Your task to perform on an android device: Search for "razer nari" on walmart.com, select the first entry, add it to the cart, then select checkout. Image 0: 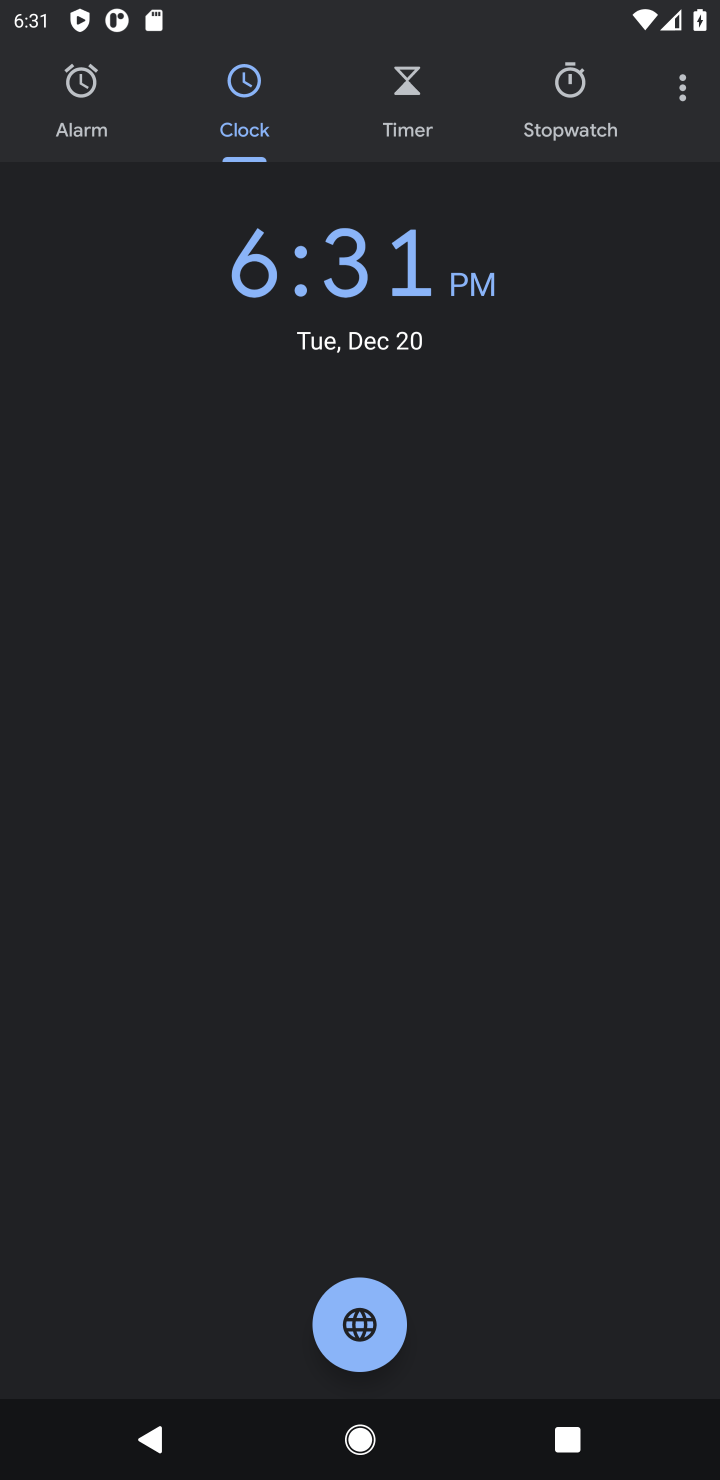
Step 0: press home button
Your task to perform on an android device: Search for "razer nari" on walmart.com, select the first entry, add it to the cart, then select checkout. Image 1: 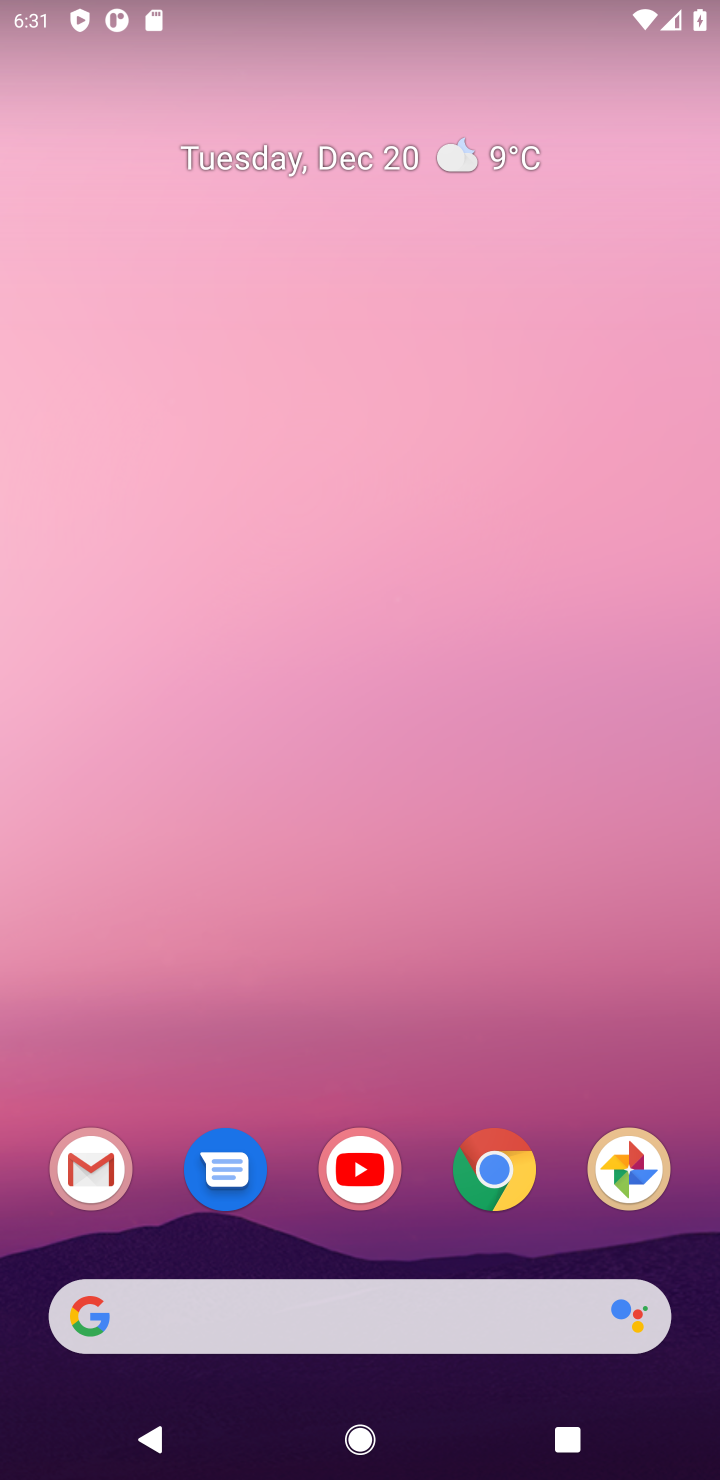
Step 1: click (483, 1159)
Your task to perform on an android device: Search for "razer nari" on walmart.com, select the first entry, add it to the cart, then select checkout. Image 2: 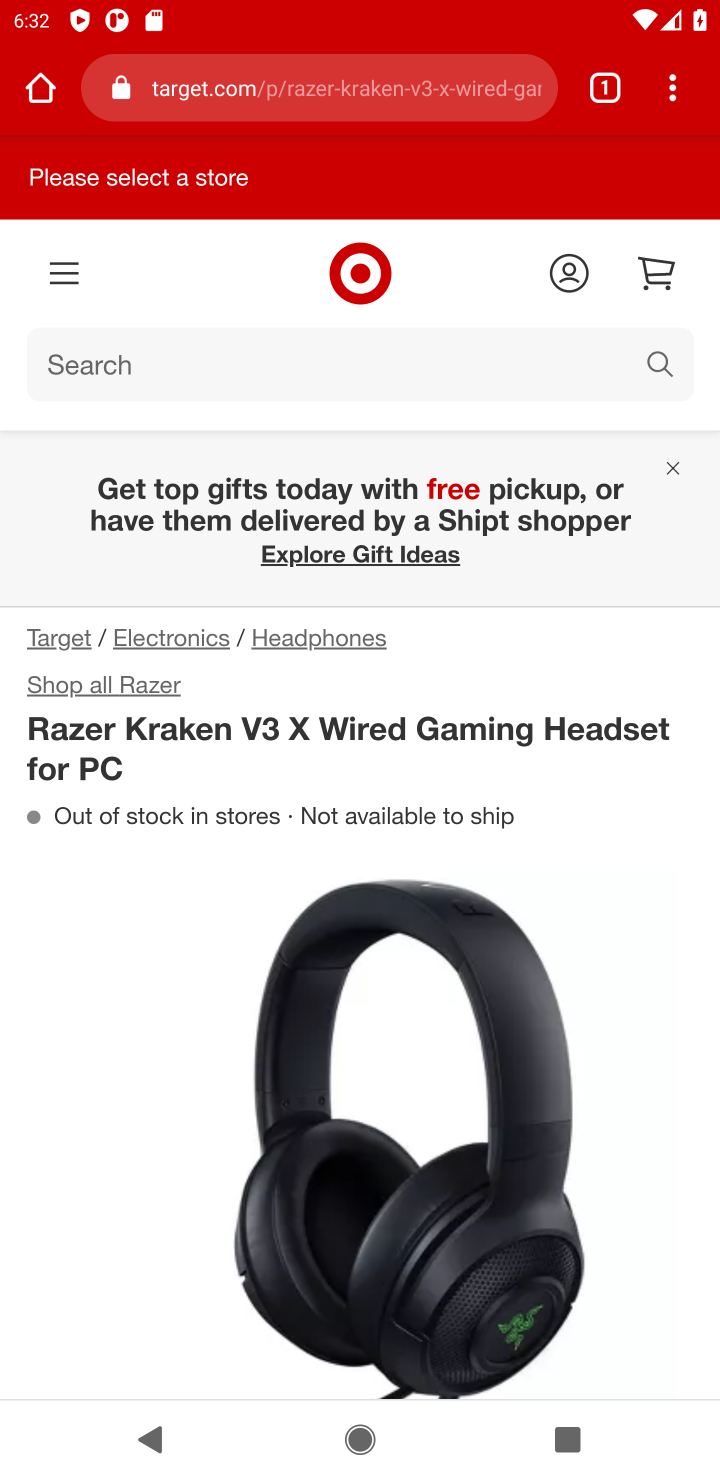
Step 2: click (281, 101)
Your task to perform on an android device: Search for "razer nari" on walmart.com, select the first entry, add it to the cart, then select checkout. Image 3: 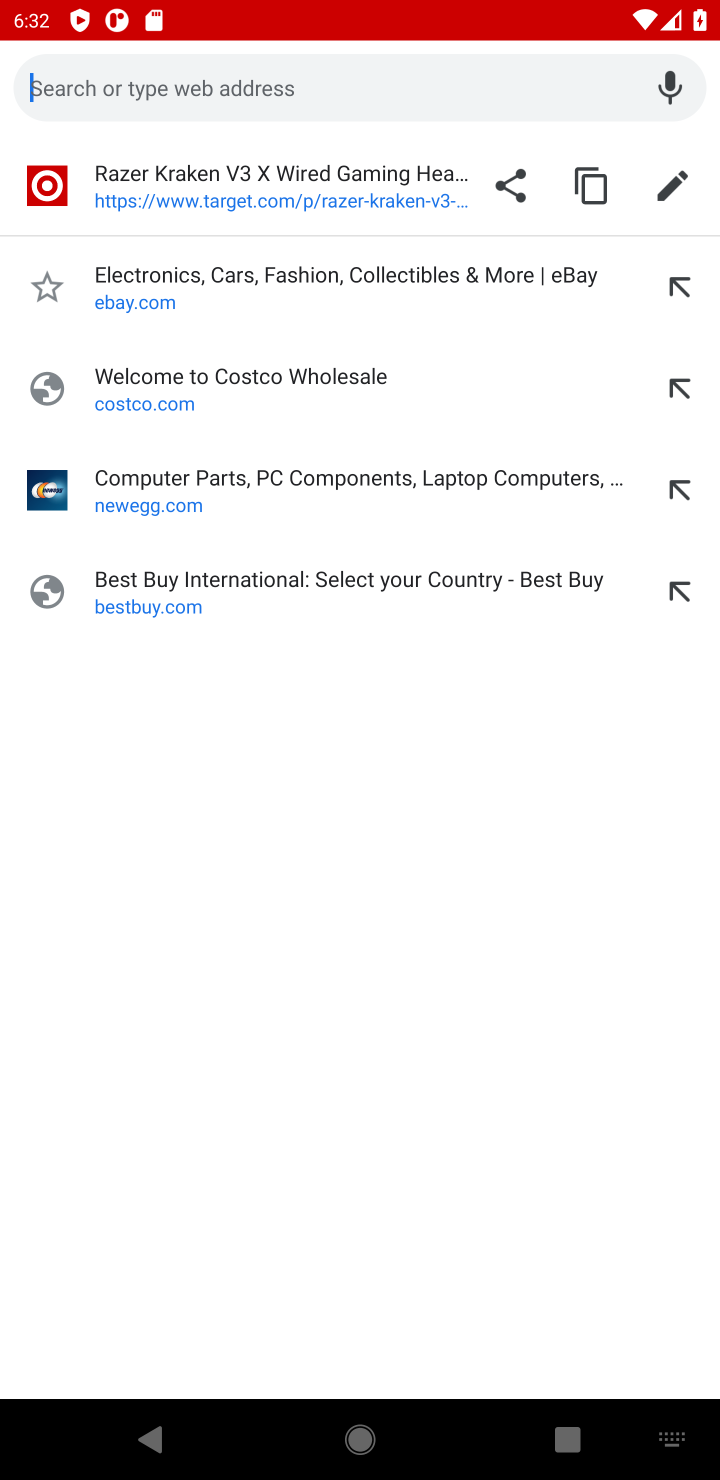
Step 3: type "walmart"
Your task to perform on an android device: Search for "razer nari" on walmart.com, select the first entry, add it to the cart, then select checkout. Image 4: 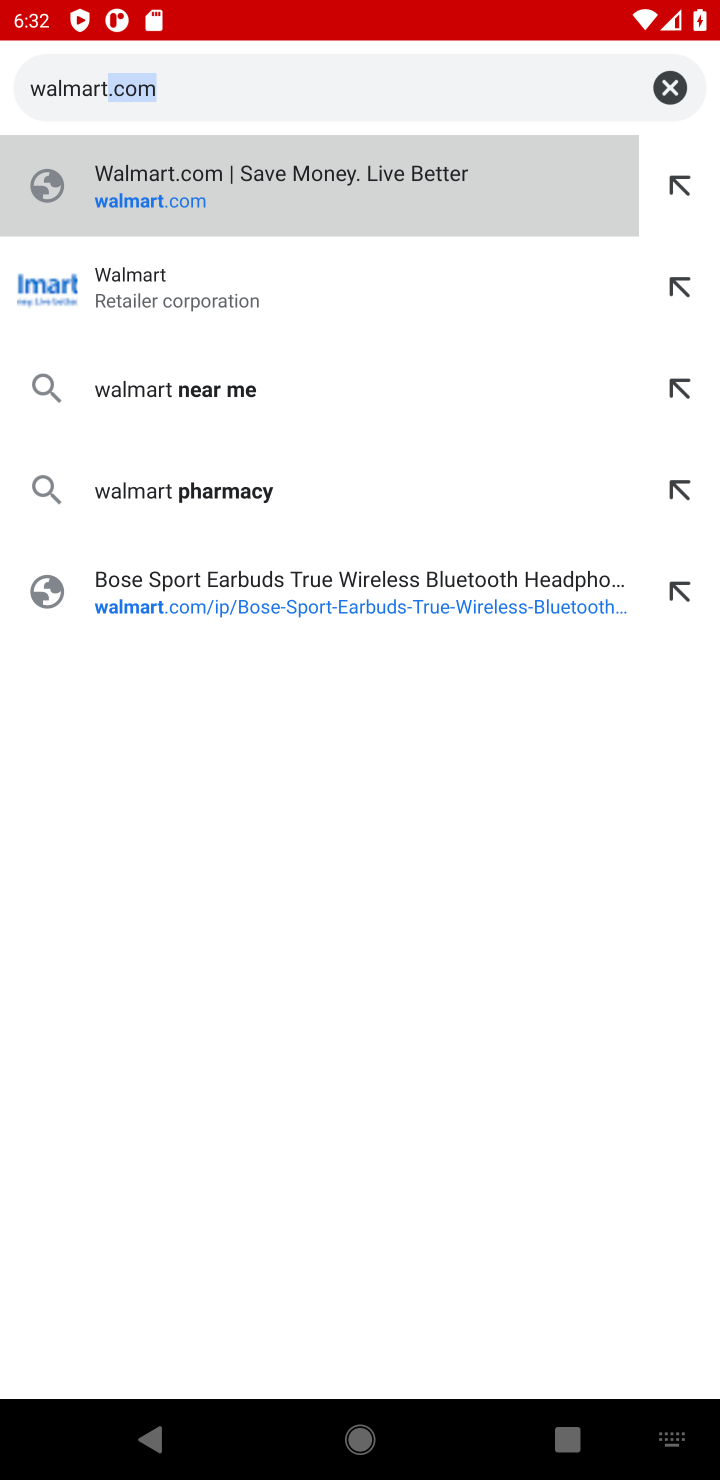
Step 4: click (214, 202)
Your task to perform on an android device: Search for "razer nari" on walmart.com, select the first entry, add it to the cart, then select checkout. Image 5: 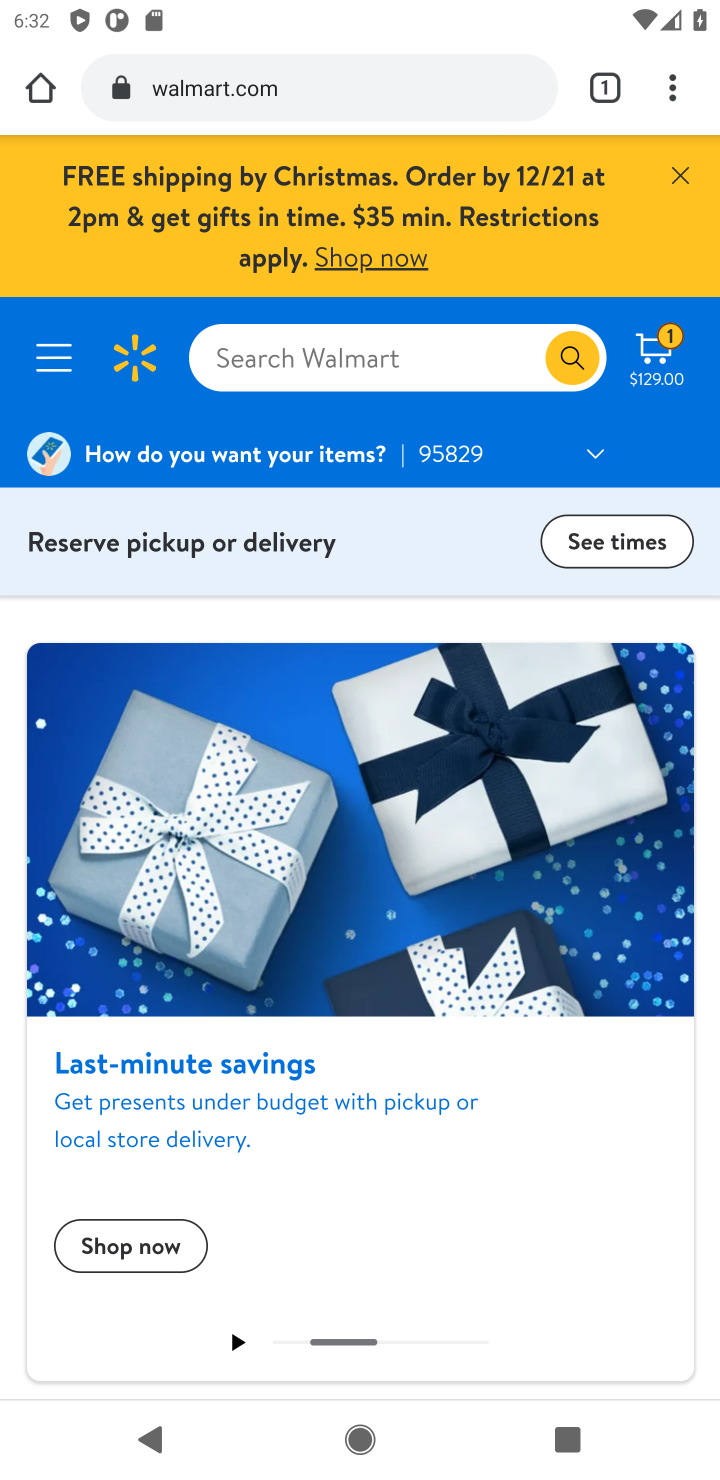
Step 5: click (300, 348)
Your task to perform on an android device: Search for "razer nari" on walmart.com, select the first entry, add it to the cart, then select checkout. Image 6: 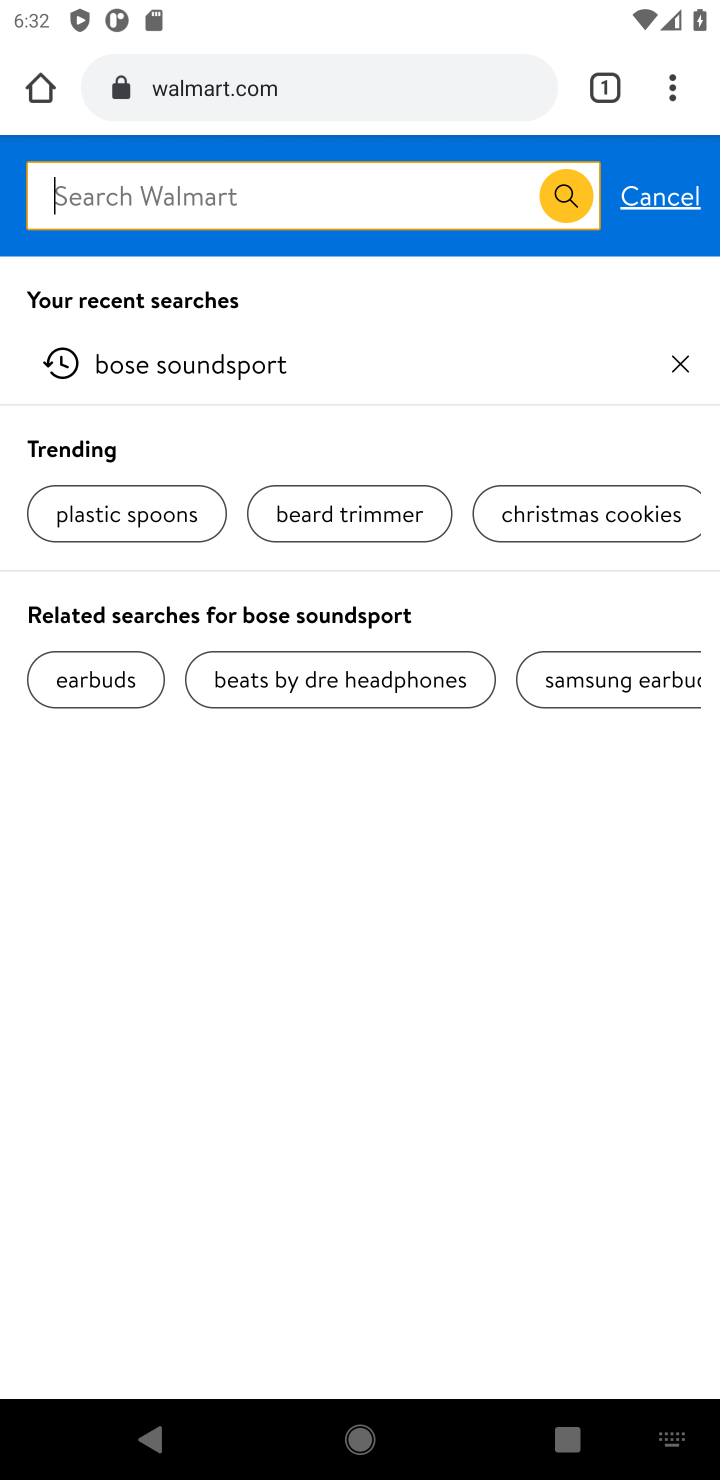
Step 6: type "razer nari"
Your task to perform on an android device: Search for "razer nari" on walmart.com, select the first entry, add it to the cart, then select checkout. Image 7: 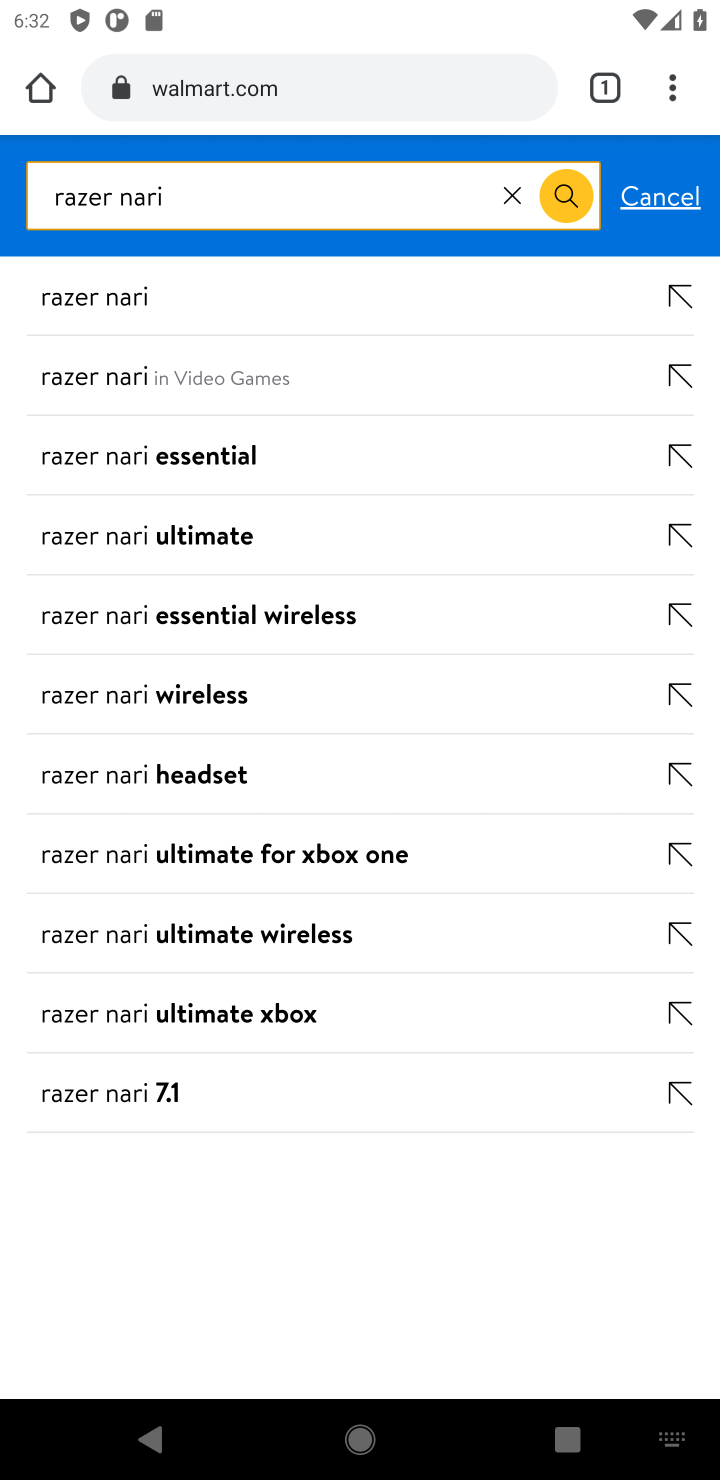
Step 7: click (106, 281)
Your task to perform on an android device: Search for "razer nari" on walmart.com, select the first entry, add it to the cart, then select checkout. Image 8: 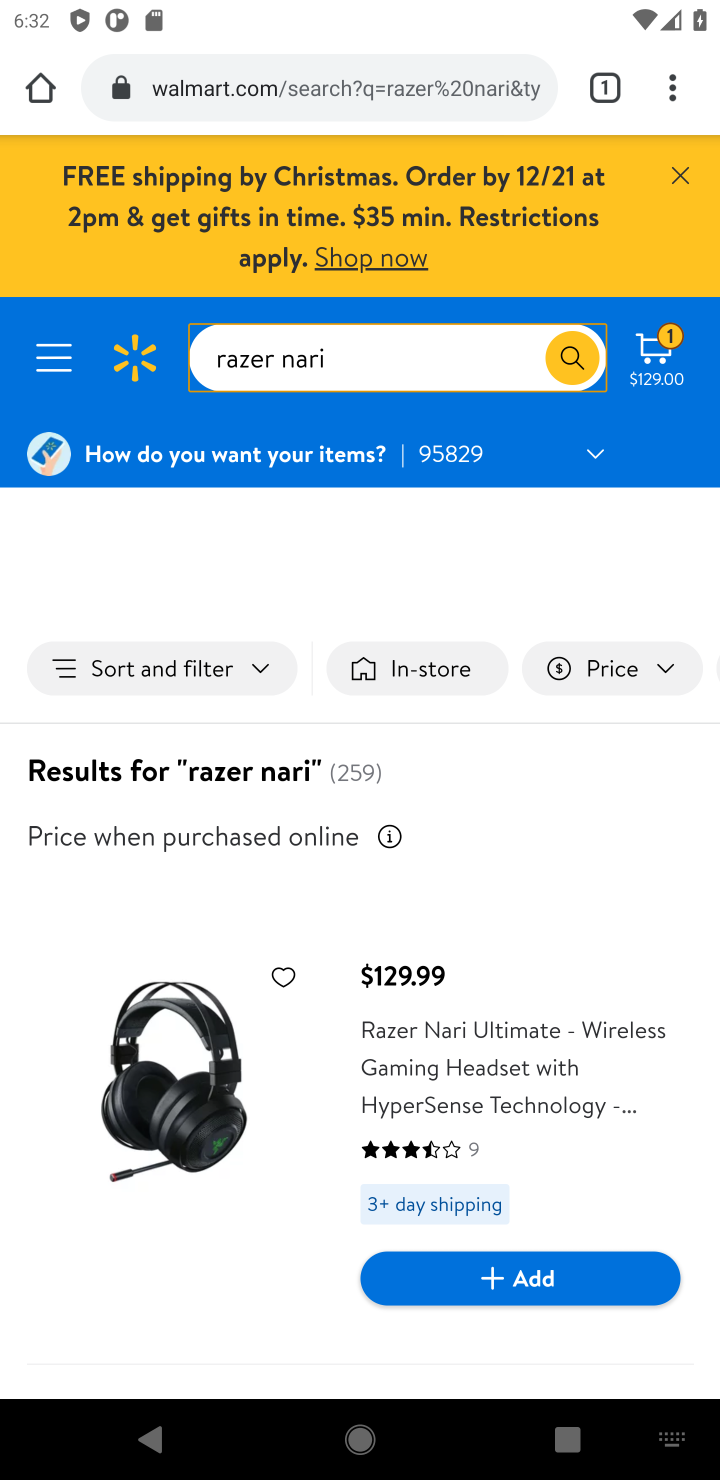
Step 8: click (575, 1260)
Your task to perform on an android device: Search for "razer nari" on walmart.com, select the first entry, add it to the cart, then select checkout. Image 9: 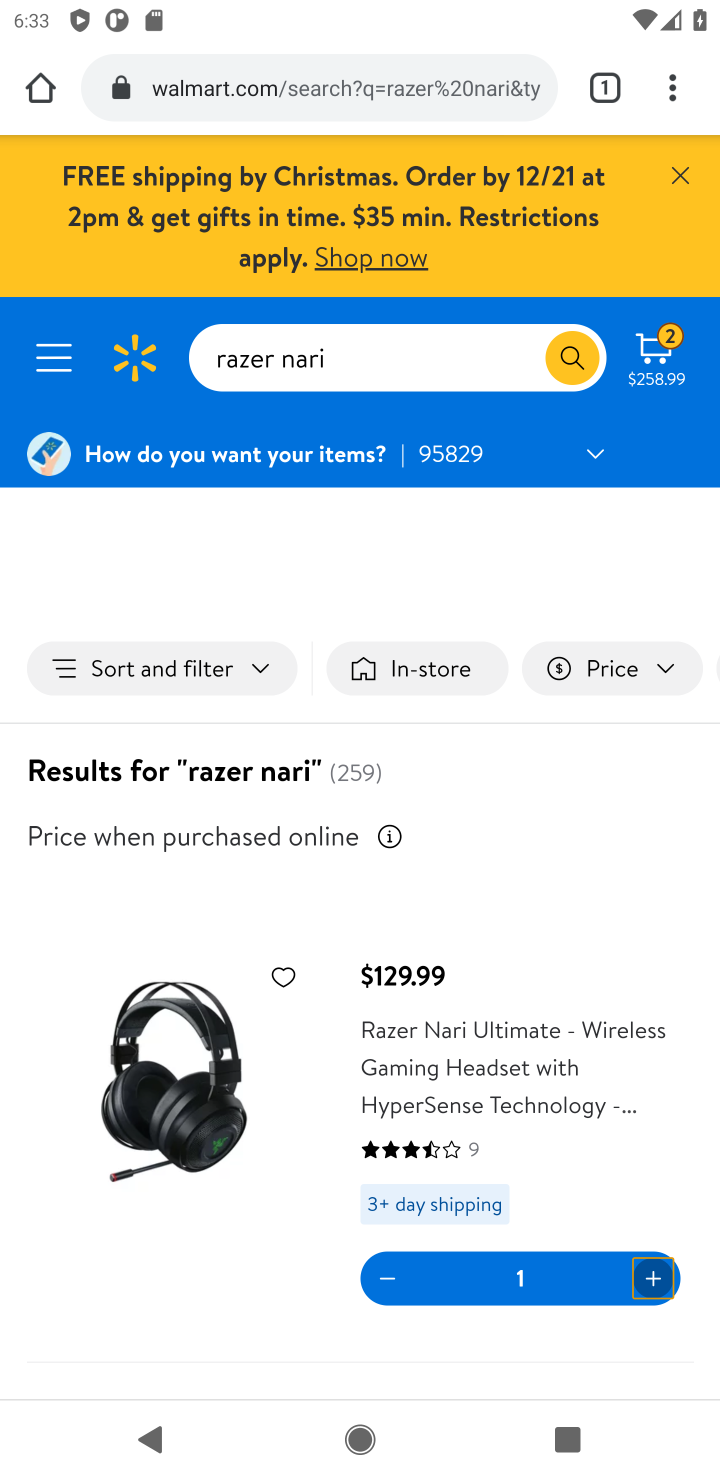
Step 9: task complete